Your task to perform on an android device: check the backup settings in the google photos Image 0: 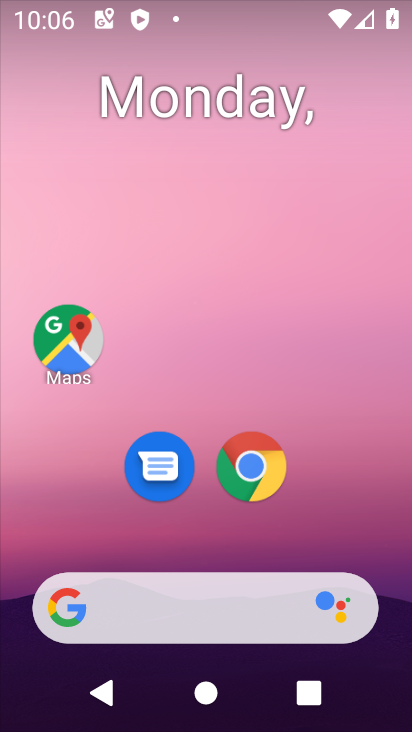
Step 0: drag from (174, 553) to (177, 179)
Your task to perform on an android device: check the backup settings in the google photos Image 1: 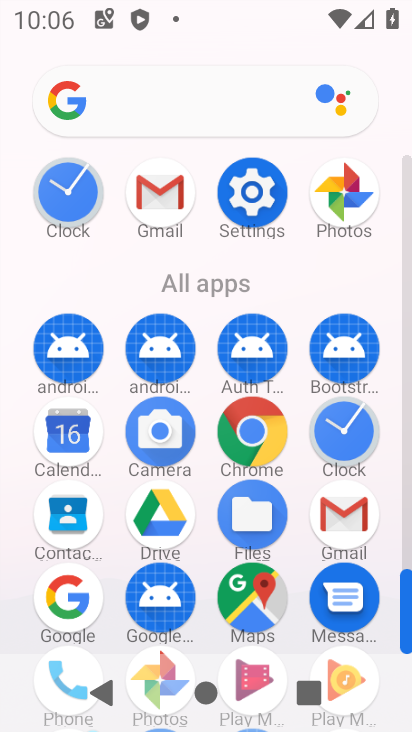
Step 1: drag from (209, 340) to (233, 167)
Your task to perform on an android device: check the backup settings in the google photos Image 2: 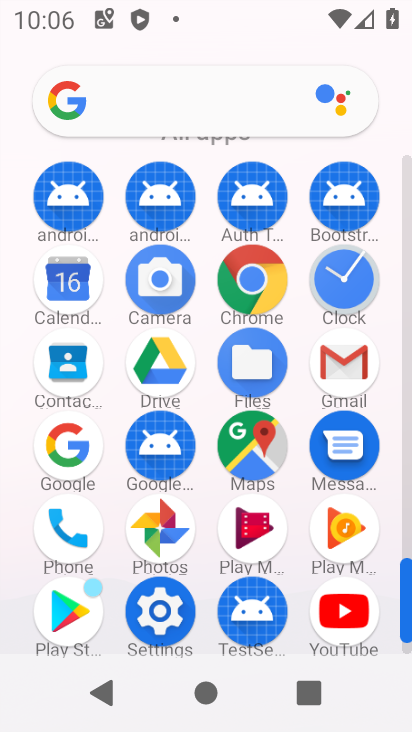
Step 2: click (161, 527)
Your task to perform on an android device: check the backup settings in the google photos Image 3: 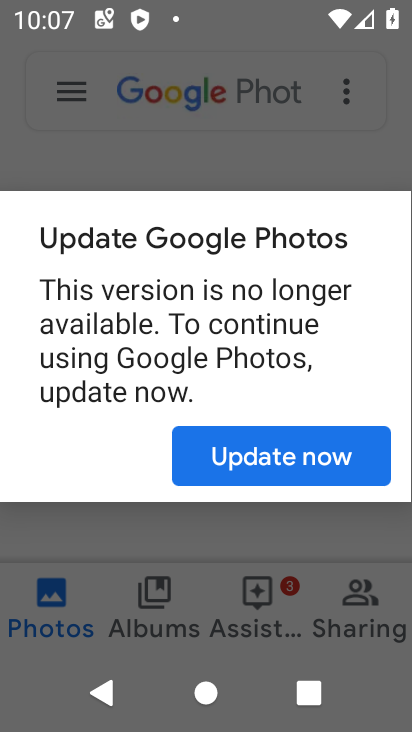
Step 3: click (254, 465)
Your task to perform on an android device: check the backup settings in the google photos Image 4: 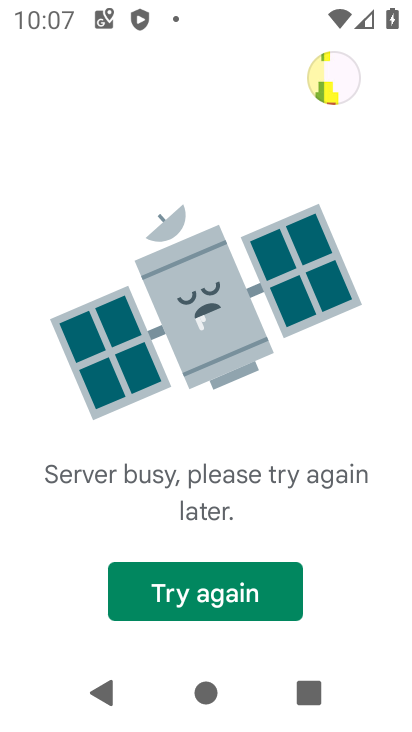
Step 4: task complete